Your task to perform on an android device: Go to privacy settings Image 0: 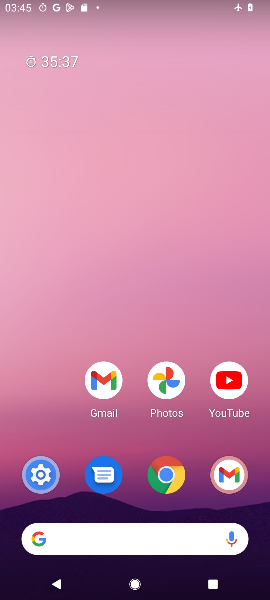
Step 0: press home button
Your task to perform on an android device: Go to privacy settings Image 1: 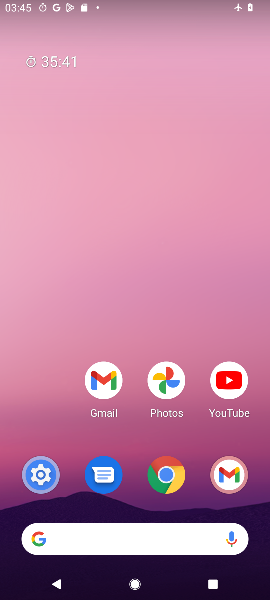
Step 1: drag from (53, 430) to (47, 183)
Your task to perform on an android device: Go to privacy settings Image 2: 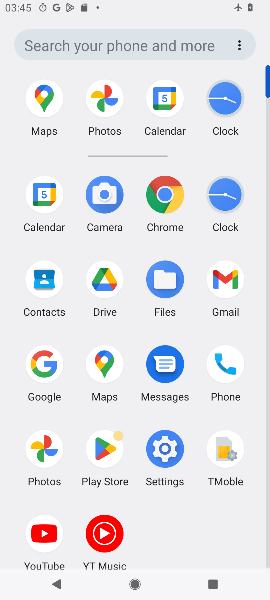
Step 2: click (170, 457)
Your task to perform on an android device: Go to privacy settings Image 3: 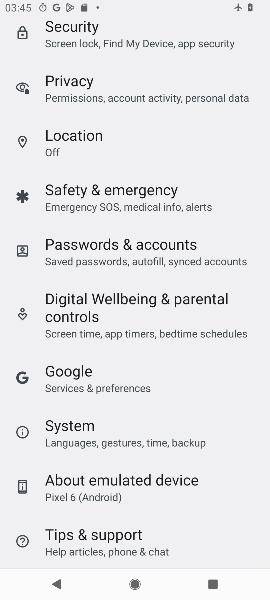
Step 3: drag from (225, 351) to (234, 445)
Your task to perform on an android device: Go to privacy settings Image 4: 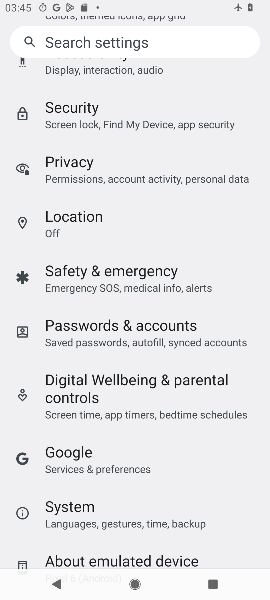
Step 4: drag from (252, 285) to (249, 384)
Your task to perform on an android device: Go to privacy settings Image 5: 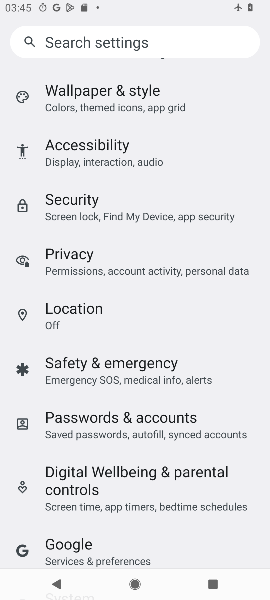
Step 5: drag from (241, 281) to (242, 409)
Your task to perform on an android device: Go to privacy settings Image 6: 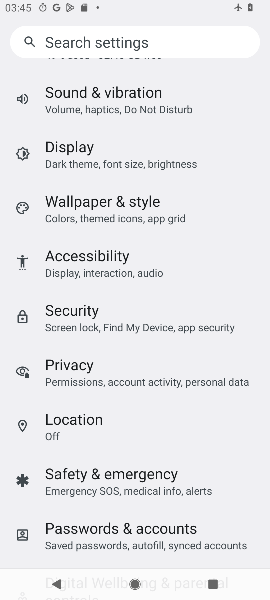
Step 6: click (163, 375)
Your task to perform on an android device: Go to privacy settings Image 7: 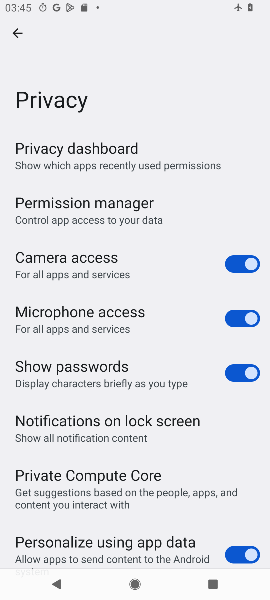
Step 7: task complete